Your task to perform on an android device: open the mobile data screen to see how much data has been used Image 0: 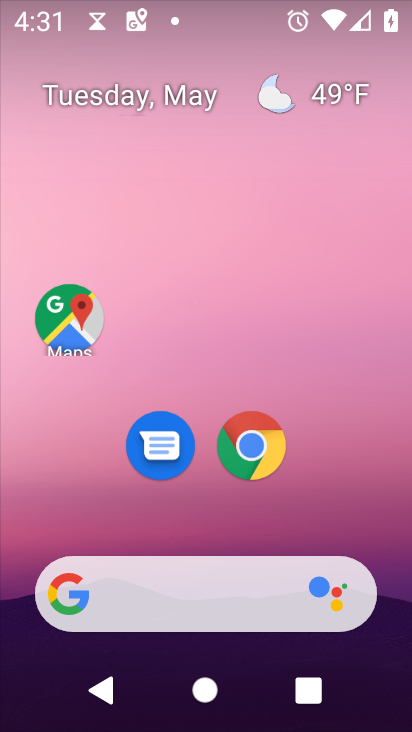
Step 0: drag from (296, 548) to (342, 0)
Your task to perform on an android device: open the mobile data screen to see how much data has been used Image 1: 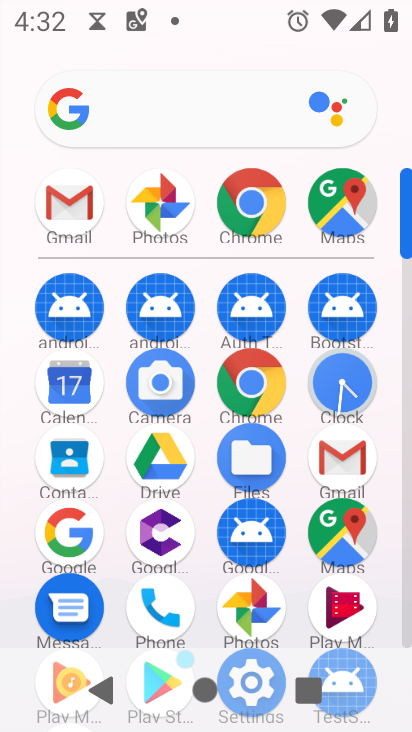
Step 1: drag from (265, 639) to (325, 273)
Your task to perform on an android device: open the mobile data screen to see how much data has been used Image 2: 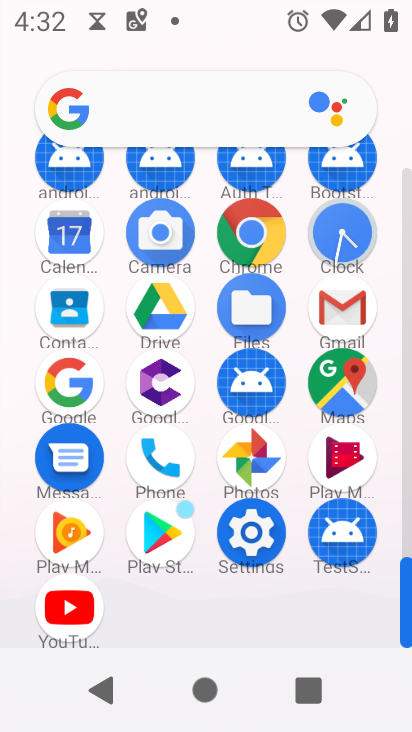
Step 2: click (245, 529)
Your task to perform on an android device: open the mobile data screen to see how much data has been used Image 3: 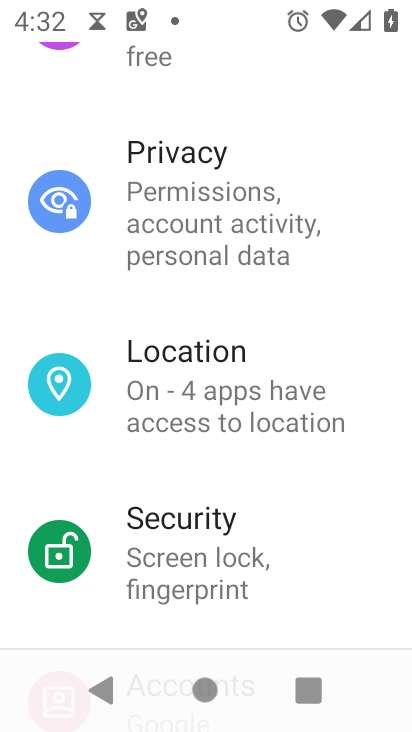
Step 3: drag from (265, 249) to (243, 667)
Your task to perform on an android device: open the mobile data screen to see how much data has been used Image 4: 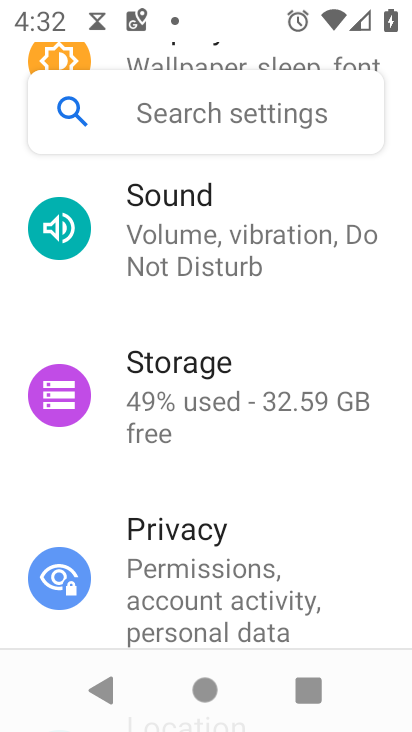
Step 4: drag from (251, 266) to (250, 598)
Your task to perform on an android device: open the mobile data screen to see how much data has been used Image 5: 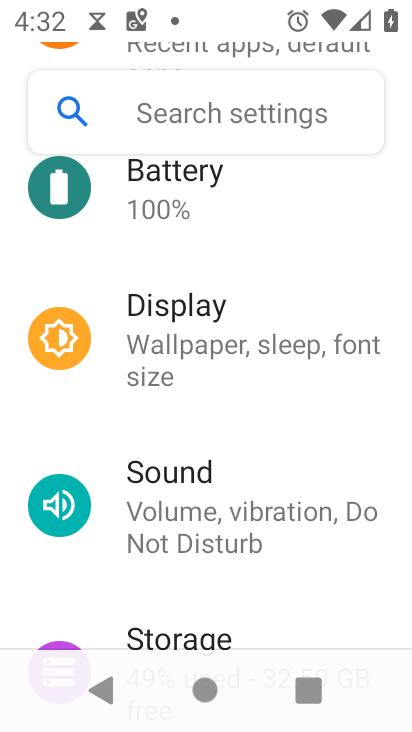
Step 5: drag from (276, 252) to (277, 695)
Your task to perform on an android device: open the mobile data screen to see how much data has been used Image 6: 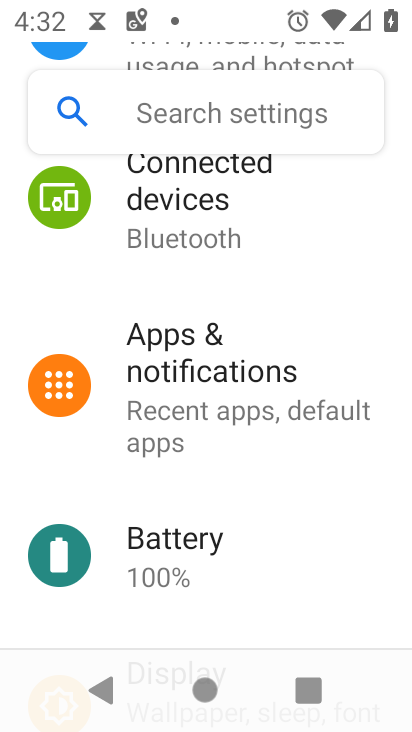
Step 6: drag from (165, 203) to (215, 619)
Your task to perform on an android device: open the mobile data screen to see how much data has been used Image 7: 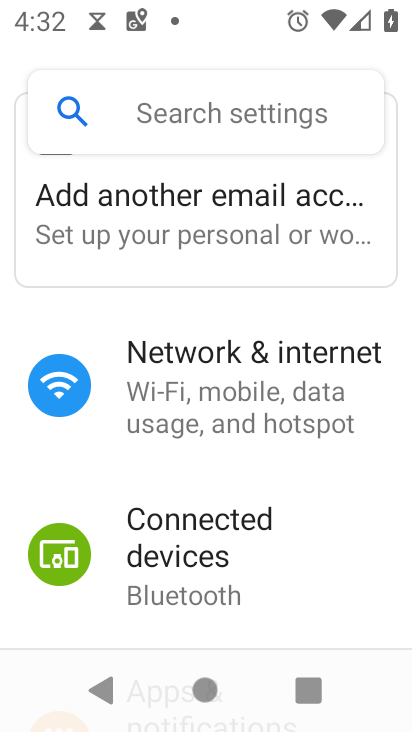
Step 7: click (256, 370)
Your task to perform on an android device: open the mobile data screen to see how much data has been used Image 8: 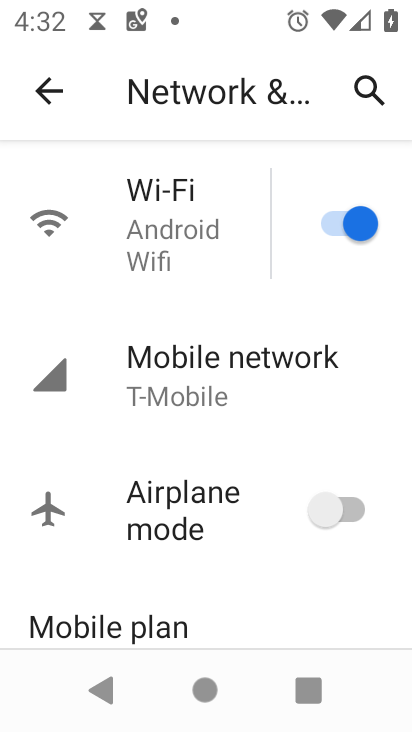
Step 8: click (275, 392)
Your task to perform on an android device: open the mobile data screen to see how much data has been used Image 9: 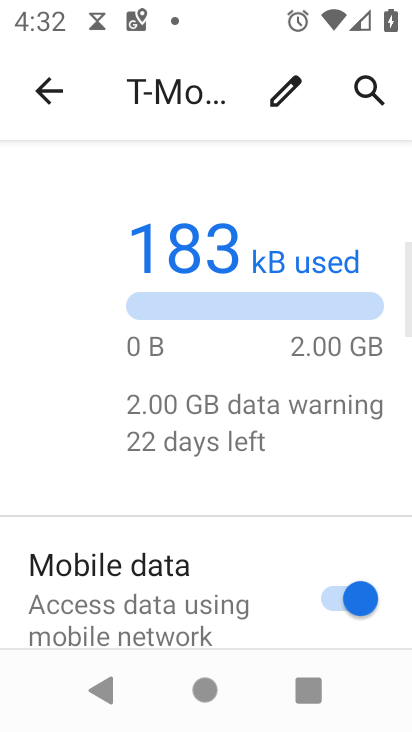
Step 9: task complete